Your task to perform on an android device: open app "PUBG MOBILE" (install if not already installed) Image 0: 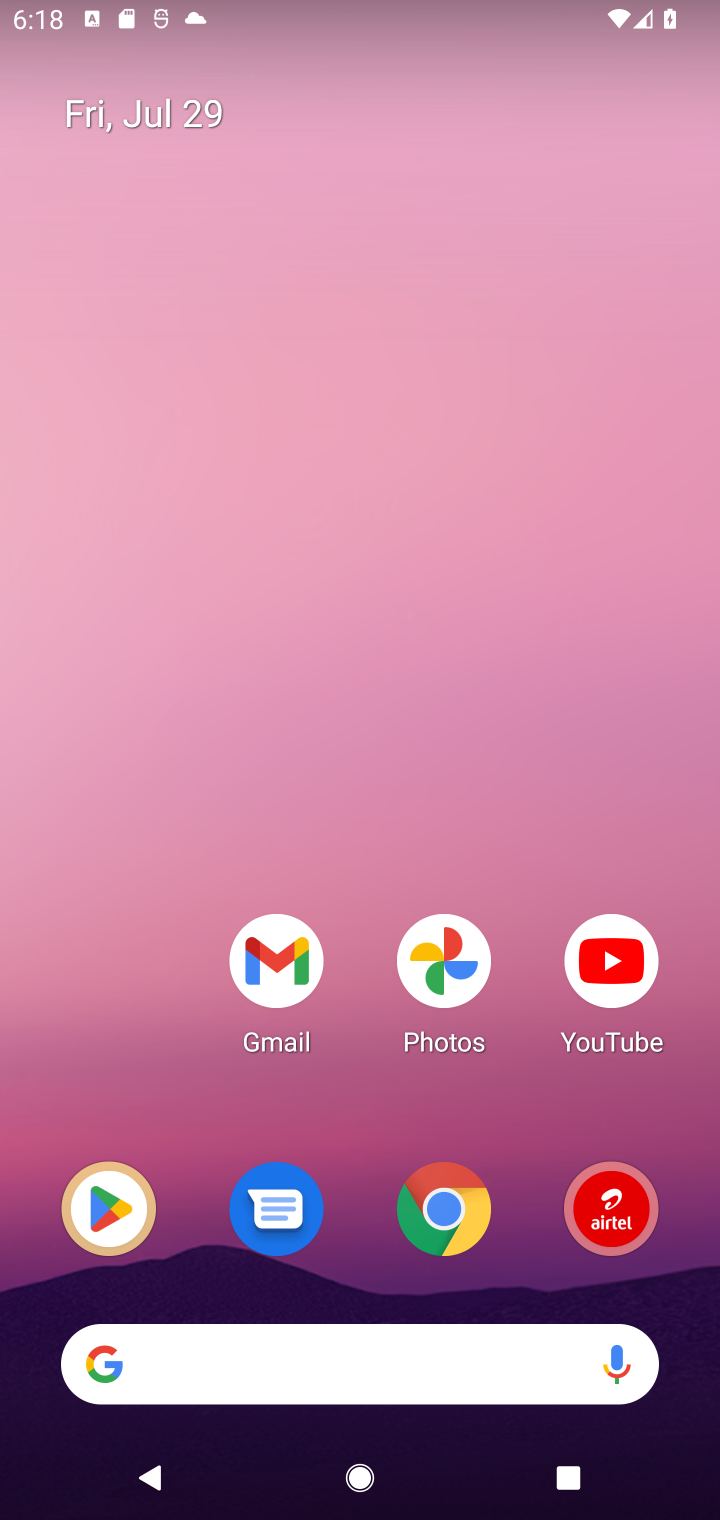
Step 0: click (80, 1241)
Your task to perform on an android device: open app "PUBG MOBILE" (install if not already installed) Image 1: 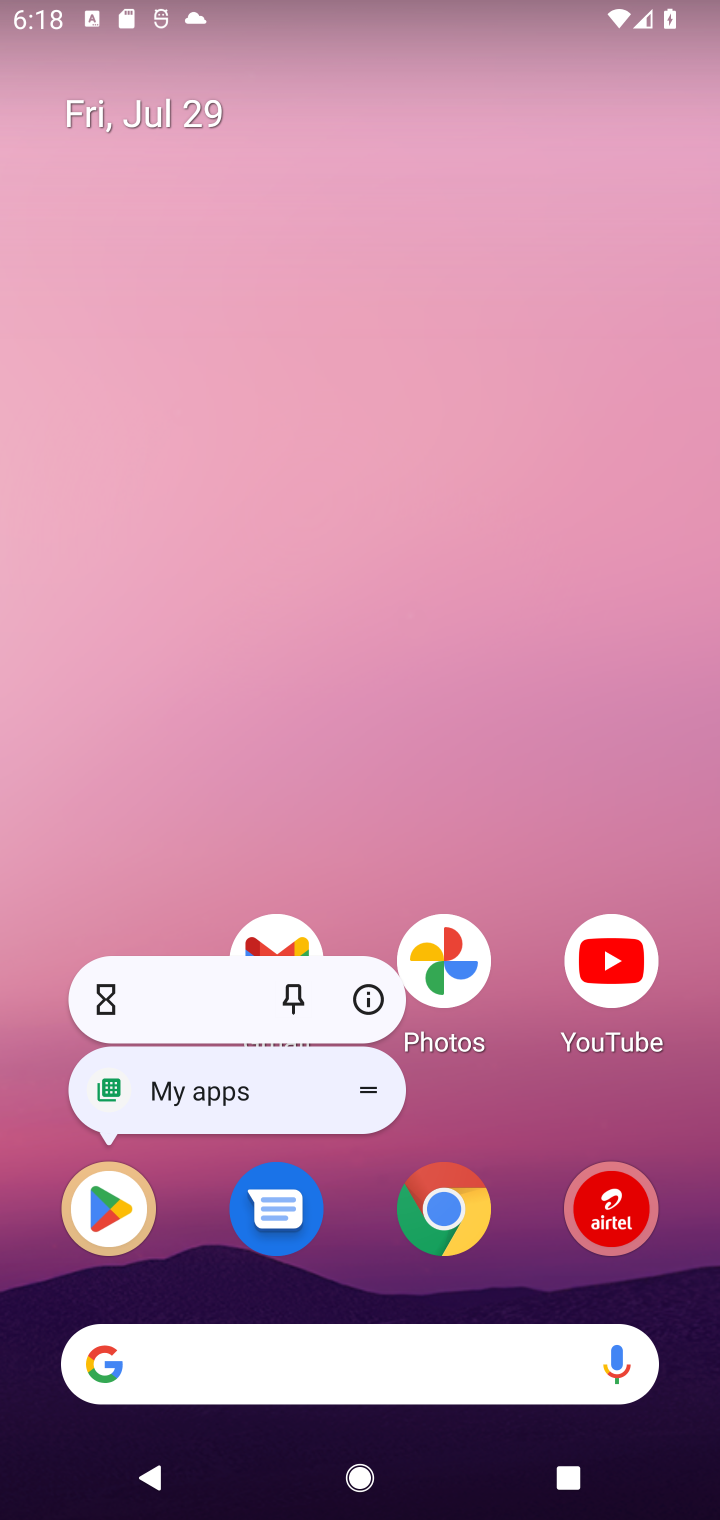
Step 1: click (103, 1218)
Your task to perform on an android device: open app "PUBG MOBILE" (install if not already installed) Image 2: 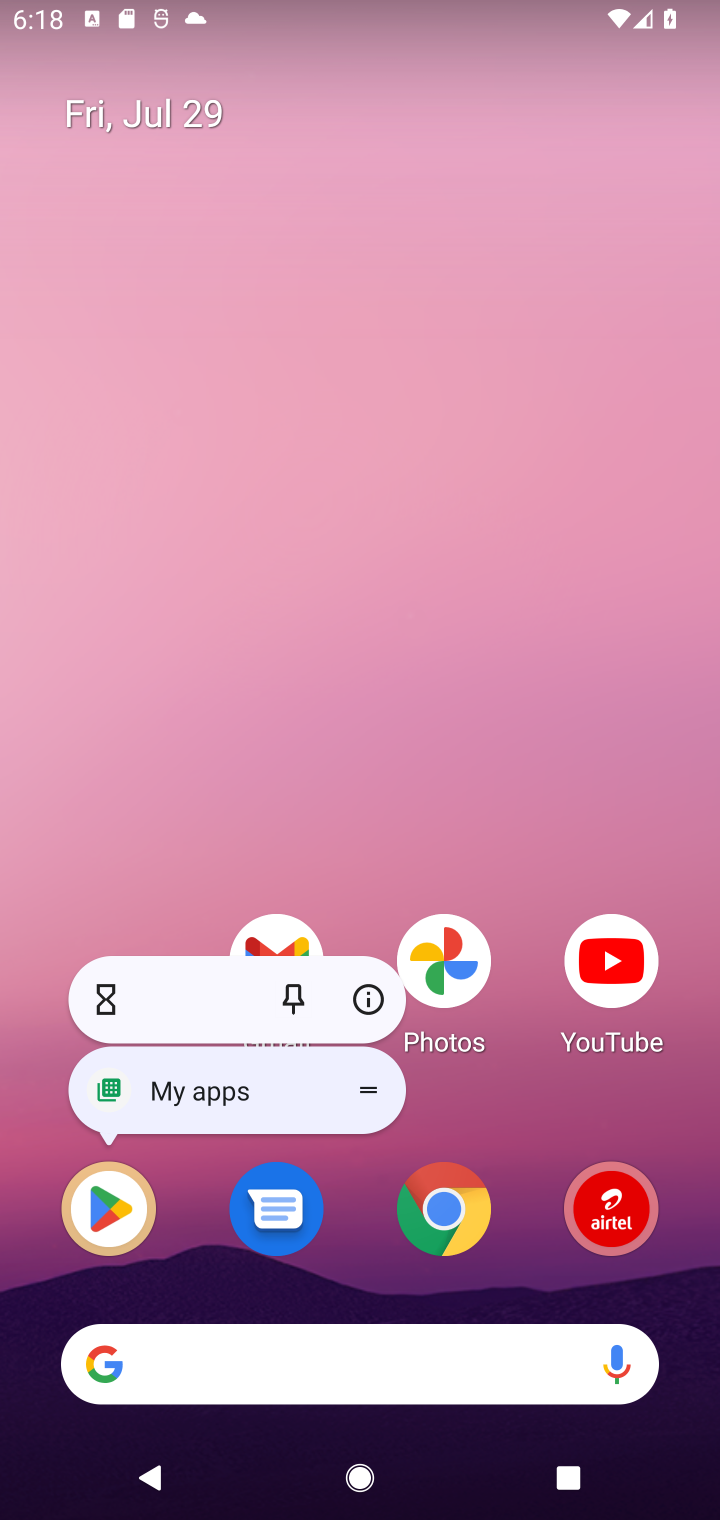
Step 2: click (103, 1218)
Your task to perform on an android device: open app "PUBG MOBILE" (install if not already installed) Image 3: 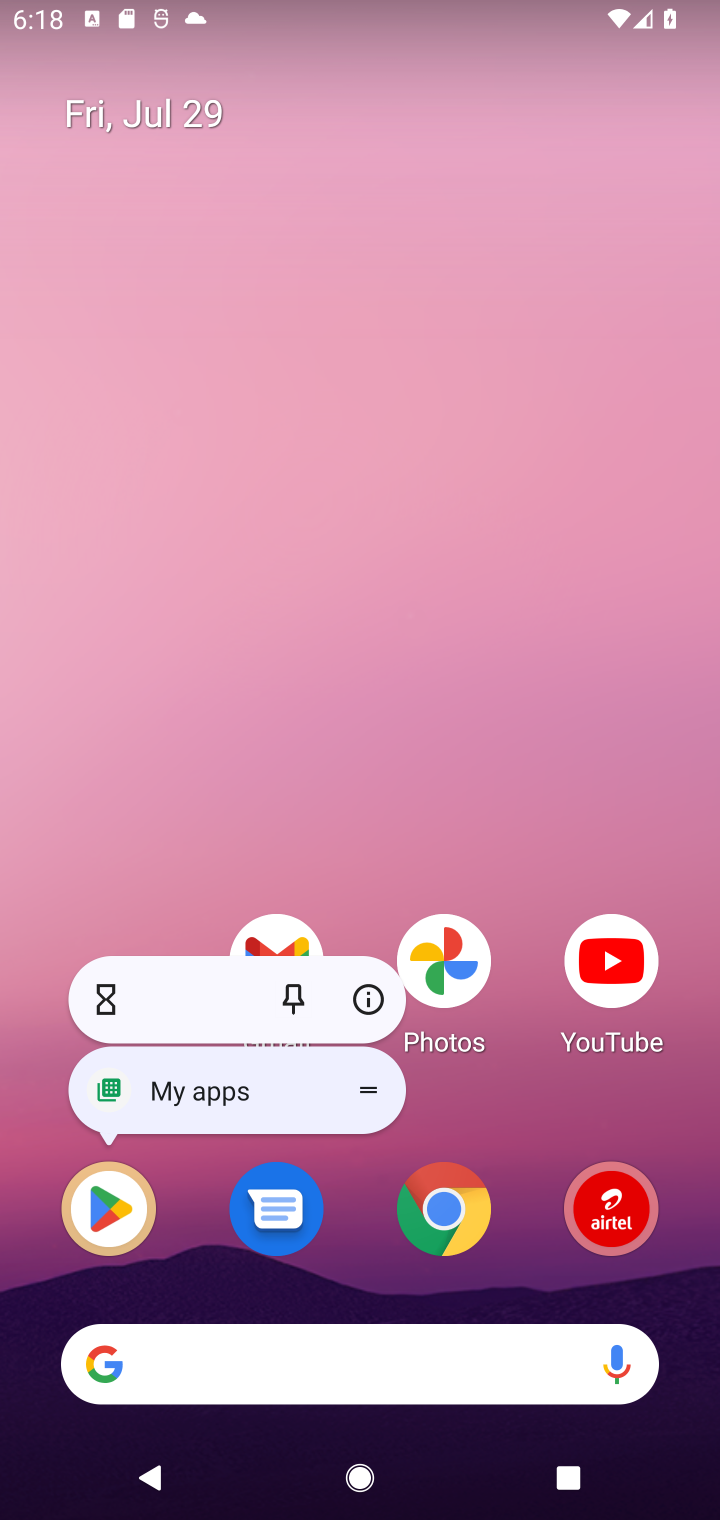
Step 3: click (103, 1218)
Your task to perform on an android device: open app "PUBG MOBILE" (install if not already installed) Image 4: 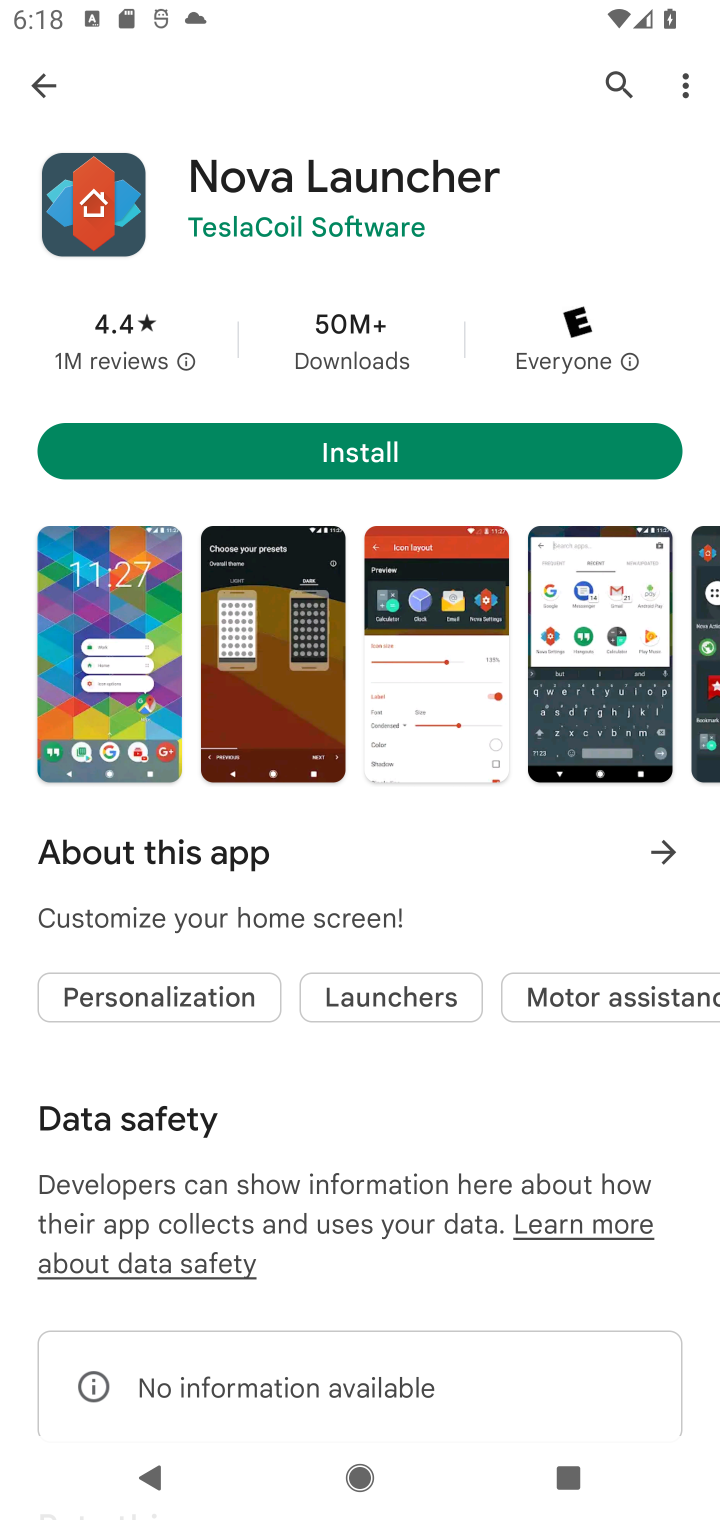
Step 4: click (605, 83)
Your task to perform on an android device: open app "PUBG MOBILE" (install if not already installed) Image 5: 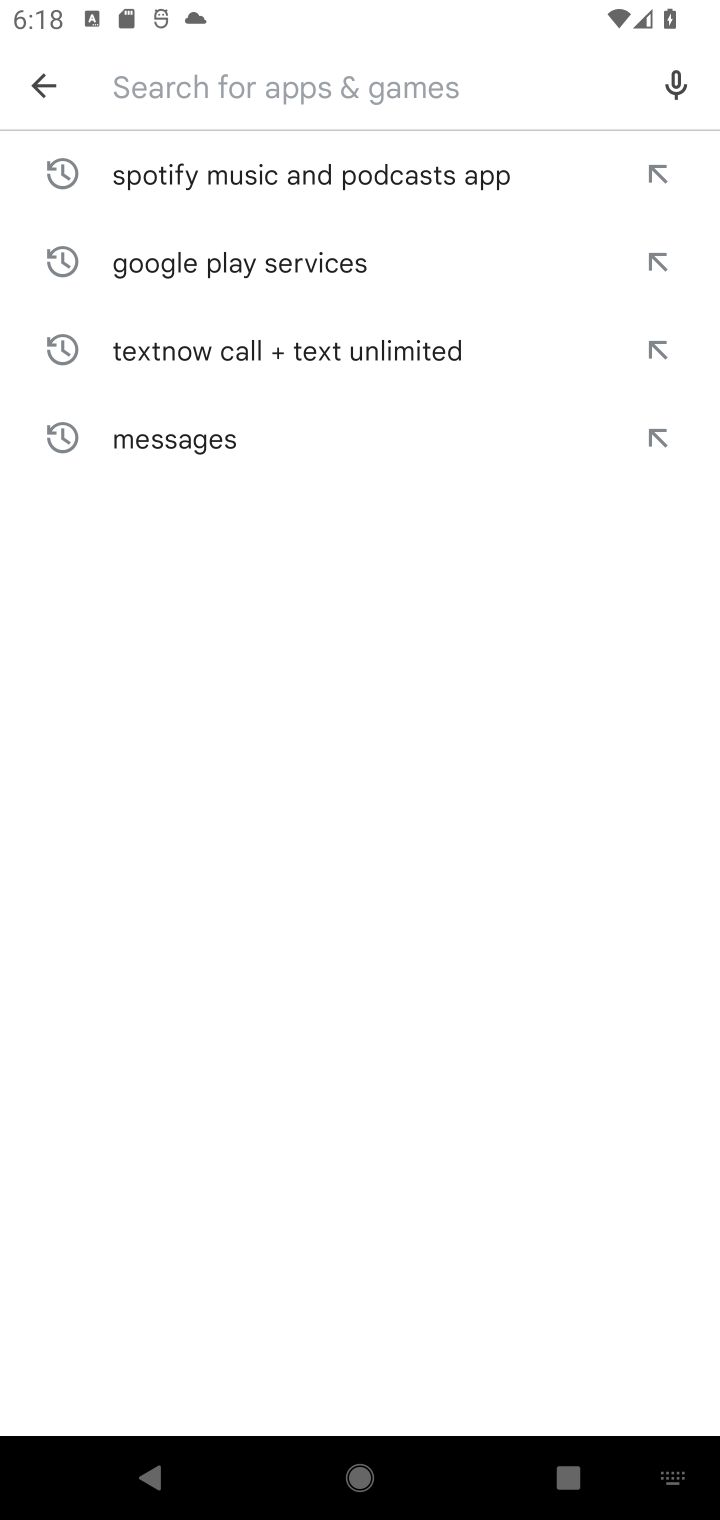
Step 5: type "PUBG MOBILE"
Your task to perform on an android device: open app "PUBG MOBILE" (install if not already installed) Image 6: 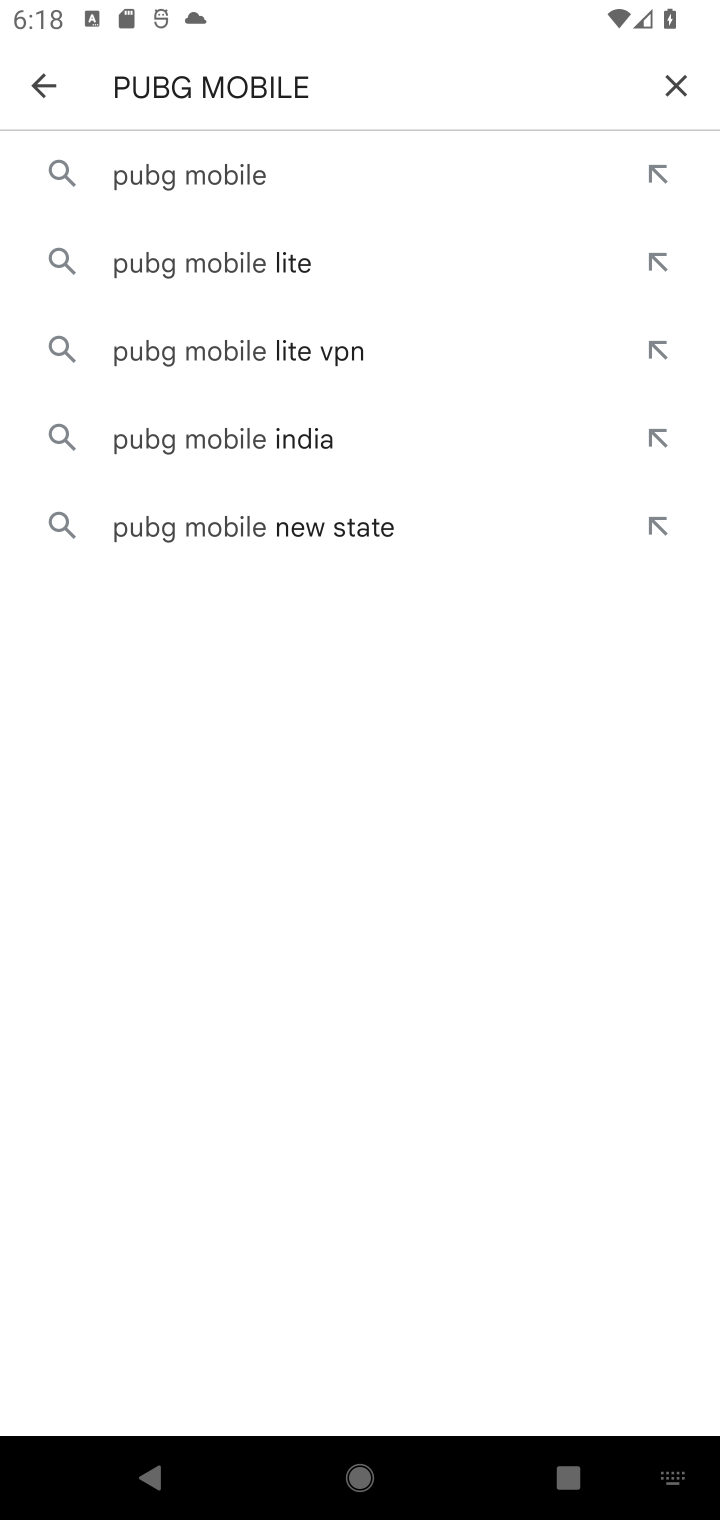
Step 6: click (225, 196)
Your task to perform on an android device: open app "PUBG MOBILE" (install if not already installed) Image 7: 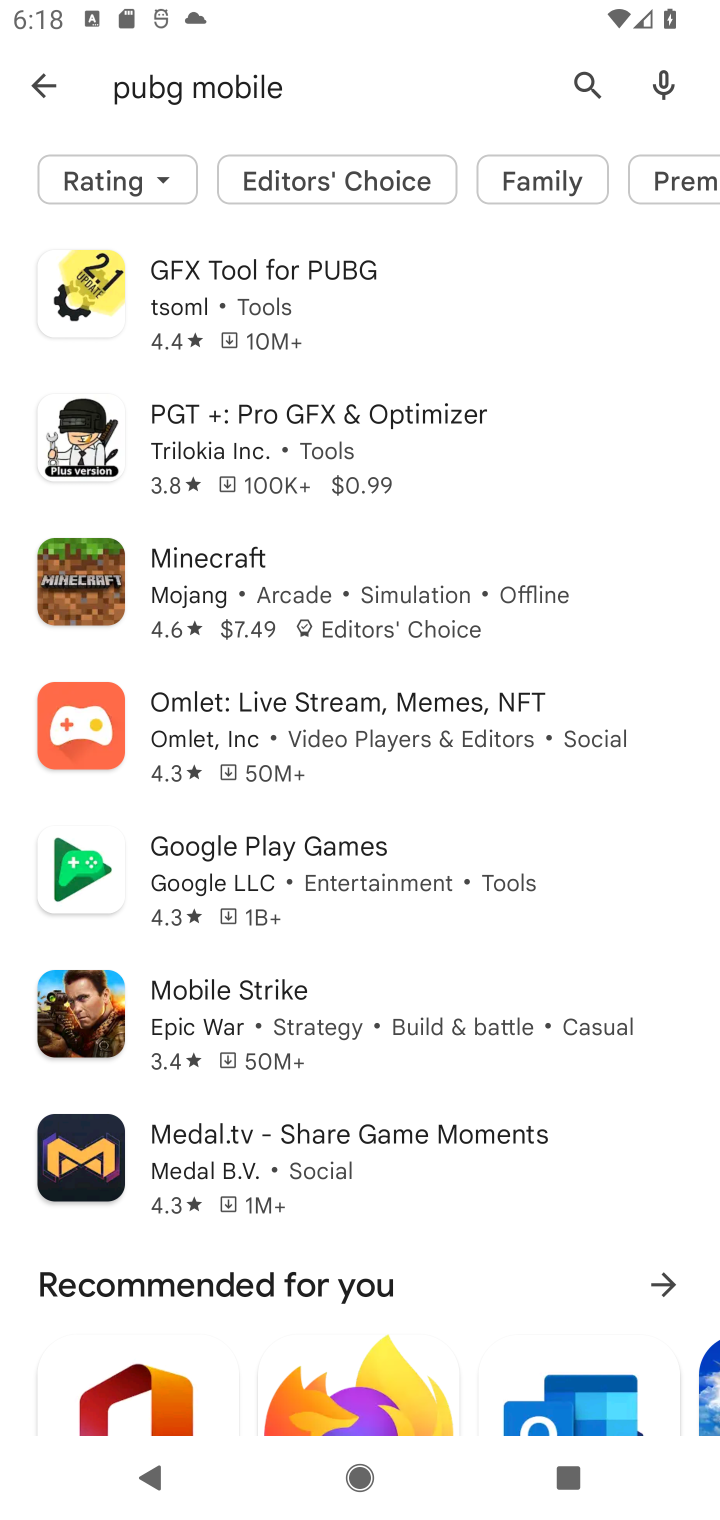
Step 7: task complete